Your task to perform on an android device: toggle sleep mode Image 0: 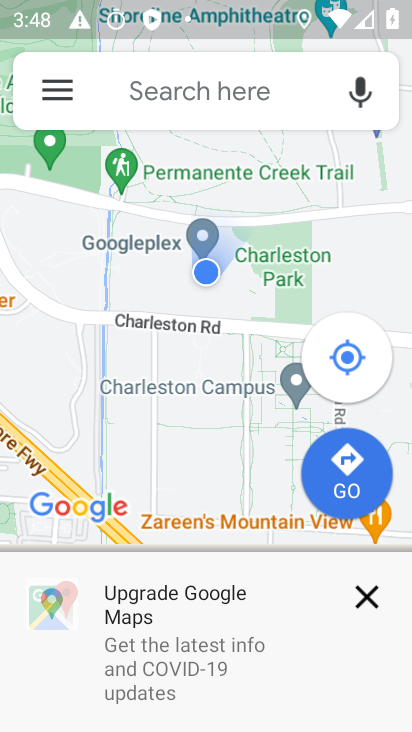
Step 0: press home button
Your task to perform on an android device: toggle sleep mode Image 1: 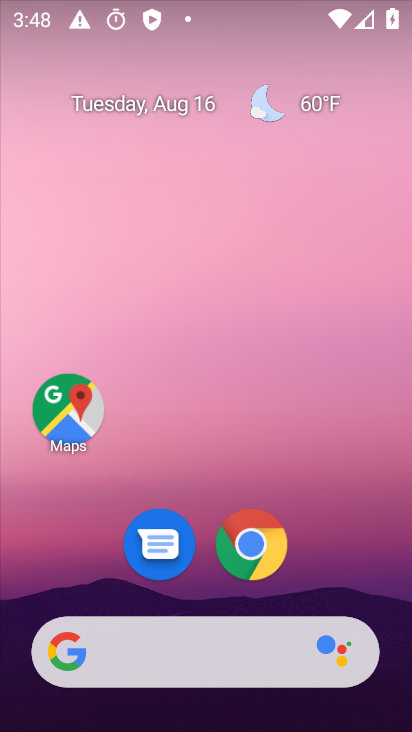
Step 1: task complete